Your task to perform on an android device: Go to wifi settings Image 0: 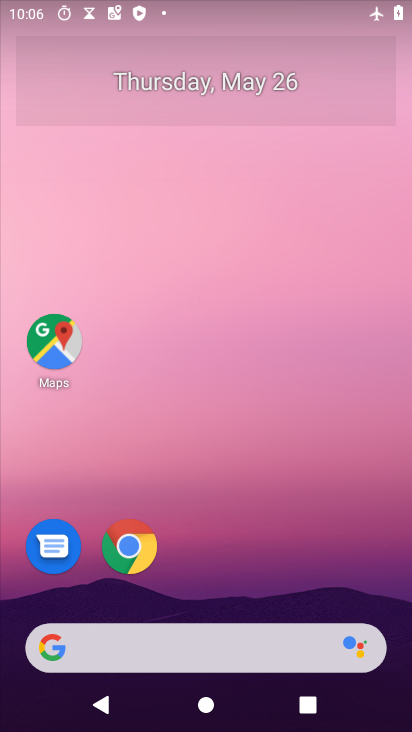
Step 0: drag from (354, 581) to (358, 109)
Your task to perform on an android device: Go to wifi settings Image 1: 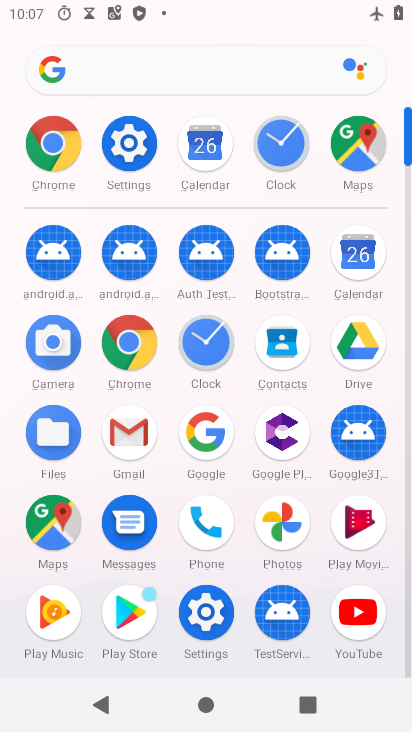
Step 1: click (141, 150)
Your task to perform on an android device: Go to wifi settings Image 2: 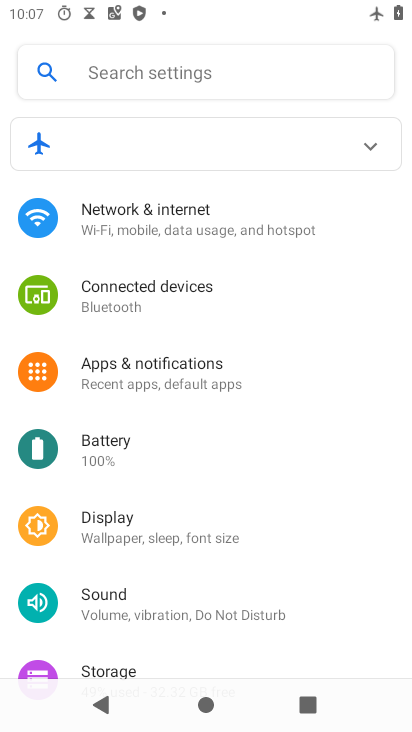
Step 2: click (183, 210)
Your task to perform on an android device: Go to wifi settings Image 3: 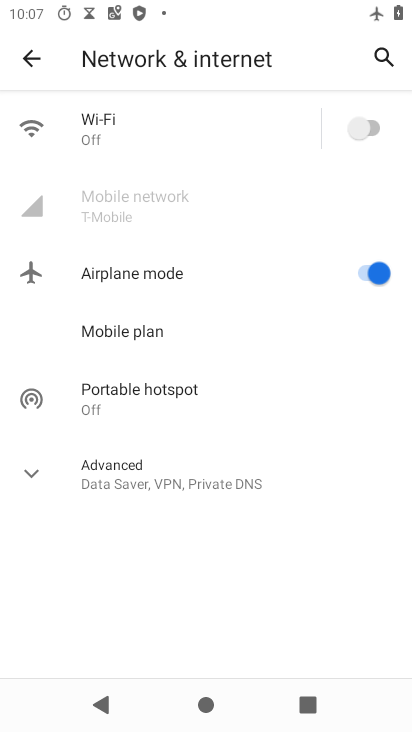
Step 3: click (231, 144)
Your task to perform on an android device: Go to wifi settings Image 4: 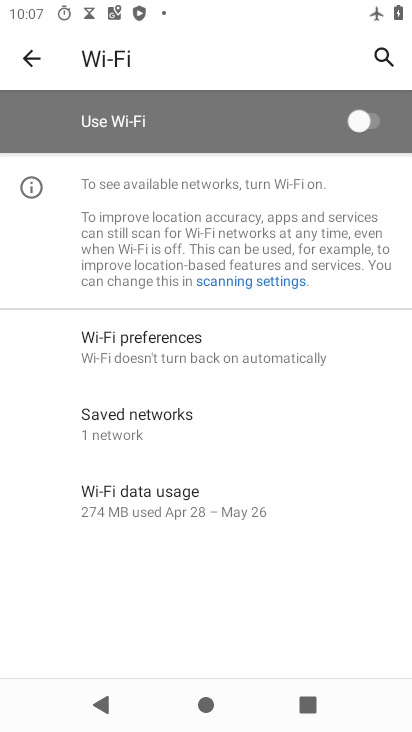
Step 4: task complete